Your task to perform on an android device: Open Google Maps and go to "Timeline" Image 0: 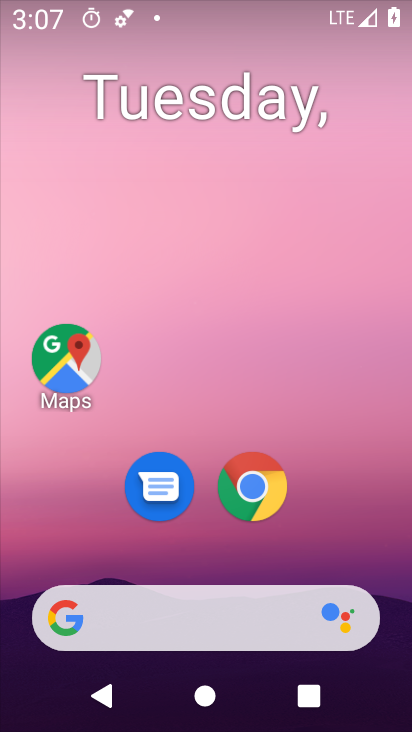
Step 0: press home button
Your task to perform on an android device: Open Google Maps and go to "Timeline" Image 1: 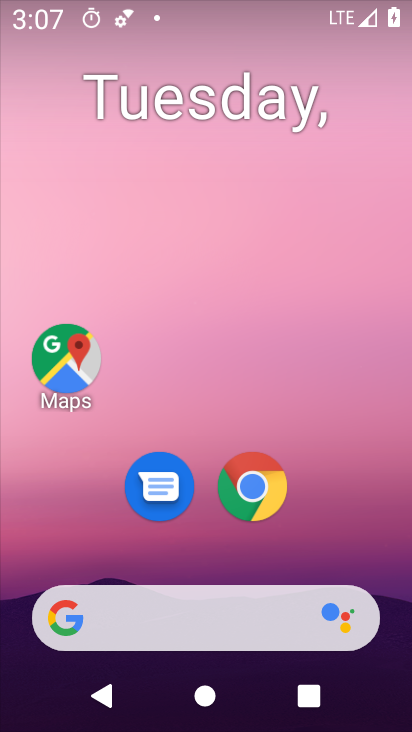
Step 1: drag from (361, 543) to (353, 42)
Your task to perform on an android device: Open Google Maps and go to "Timeline" Image 2: 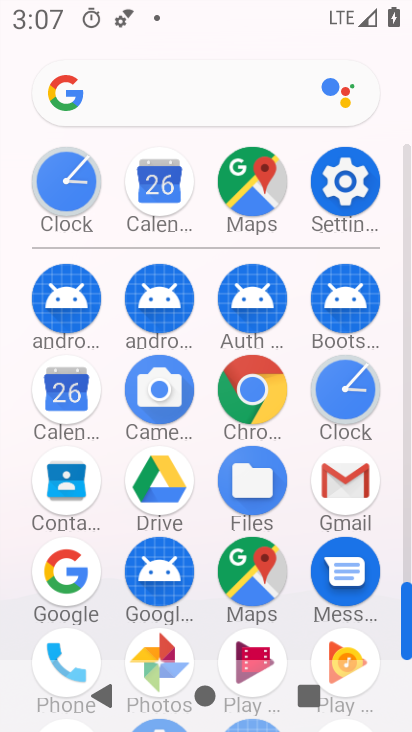
Step 2: click (257, 578)
Your task to perform on an android device: Open Google Maps and go to "Timeline" Image 3: 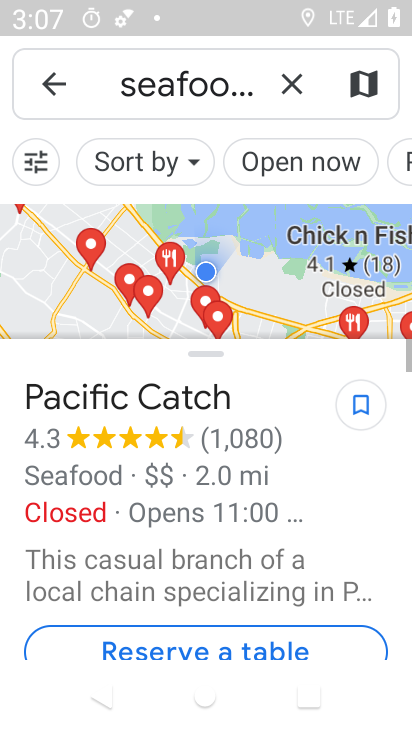
Step 3: press back button
Your task to perform on an android device: Open Google Maps and go to "Timeline" Image 4: 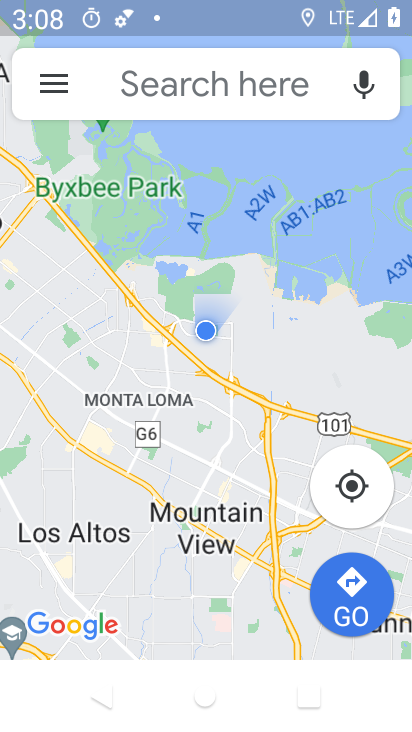
Step 4: click (63, 79)
Your task to perform on an android device: Open Google Maps and go to "Timeline" Image 5: 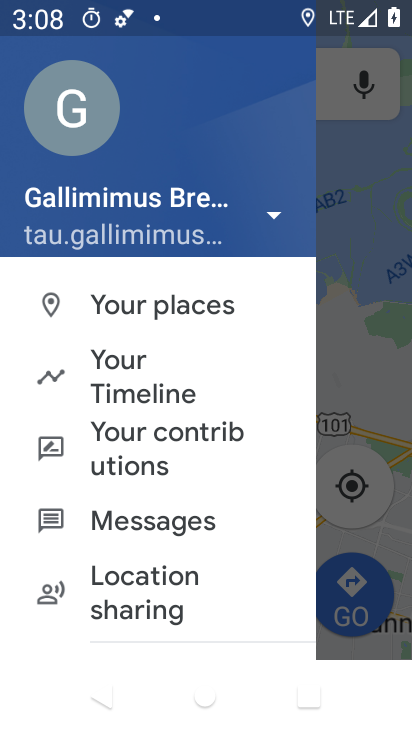
Step 5: click (181, 396)
Your task to perform on an android device: Open Google Maps and go to "Timeline" Image 6: 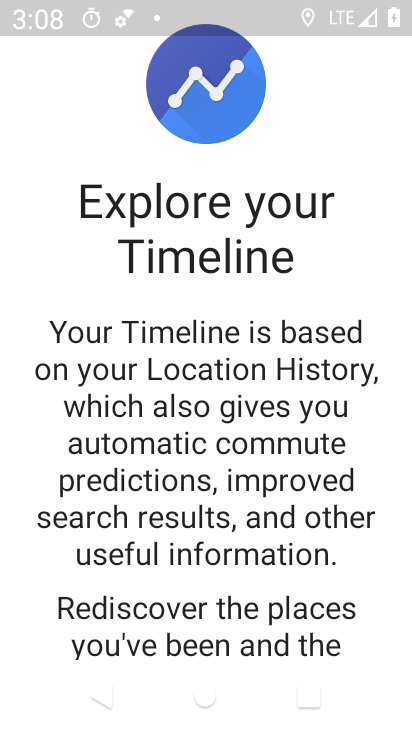
Step 6: task complete